Your task to perform on an android device: Clear the shopping cart on walmart.com. Search for usb-c to usb-b on walmart.com, select the first entry, add it to the cart, then select checkout. Image 0: 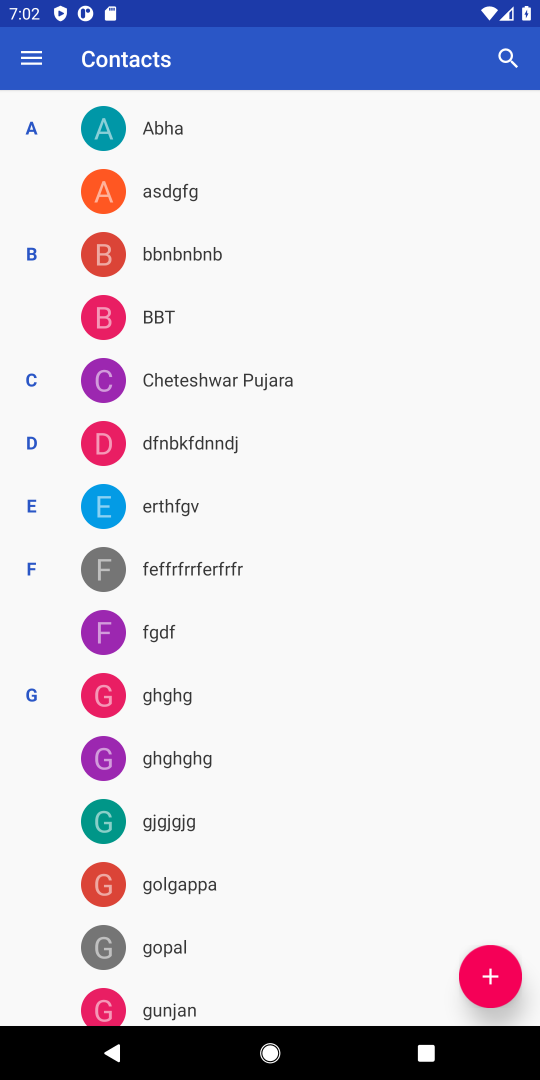
Step 0: press home button
Your task to perform on an android device: Clear the shopping cart on walmart.com. Search for usb-c to usb-b on walmart.com, select the first entry, add it to the cart, then select checkout. Image 1: 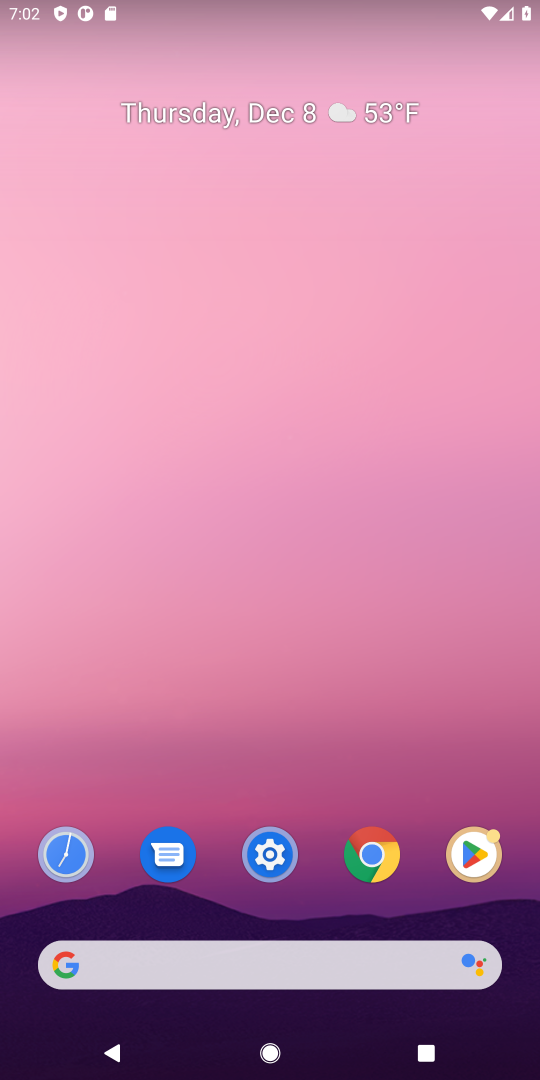
Step 1: click (89, 963)
Your task to perform on an android device: Clear the shopping cart on walmart.com. Search for usb-c to usb-b on walmart.com, select the first entry, add it to the cart, then select checkout. Image 2: 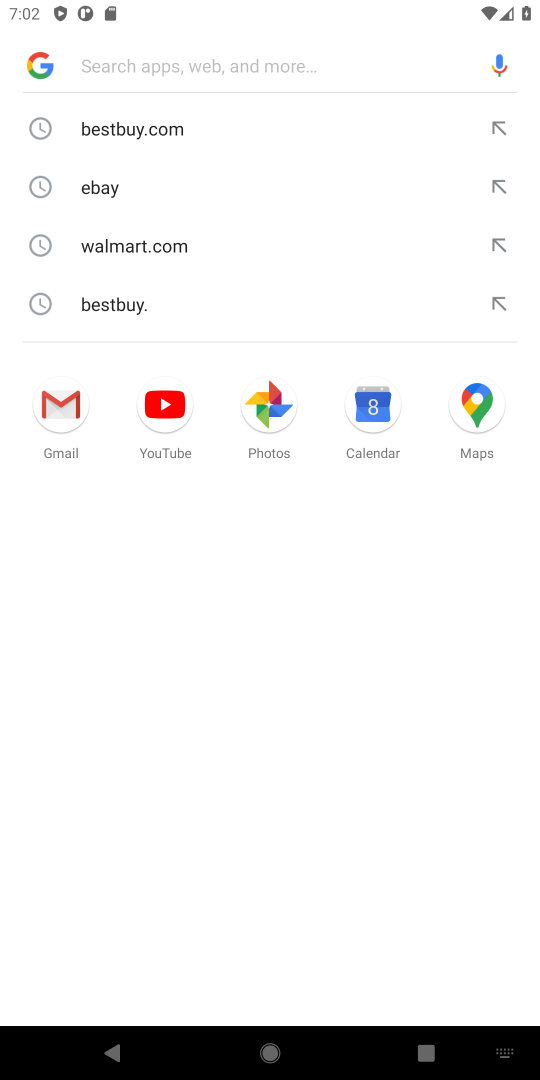
Step 2: type "walmart.com"
Your task to perform on an android device: Clear the shopping cart on walmart.com. Search for usb-c to usb-b on walmart.com, select the first entry, add it to the cart, then select checkout. Image 3: 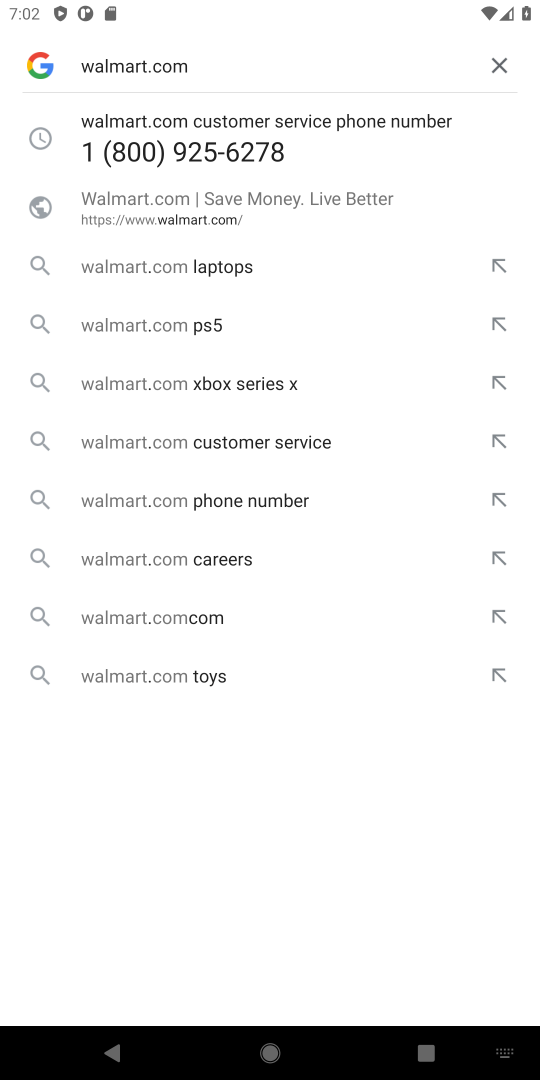
Step 3: press enter
Your task to perform on an android device: Clear the shopping cart on walmart.com. Search for usb-c to usb-b on walmart.com, select the first entry, add it to the cart, then select checkout. Image 4: 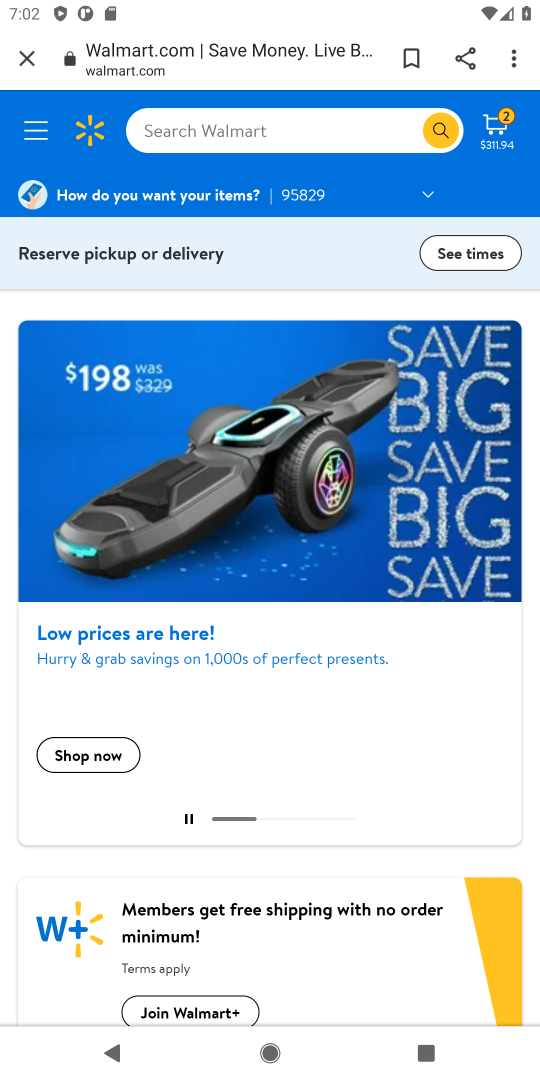
Step 4: click (493, 123)
Your task to perform on an android device: Clear the shopping cart on walmart.com. Search for usb-c to usb-b on walmart.com, select the first entry, add it to the cart, then select checkout. Image 5: 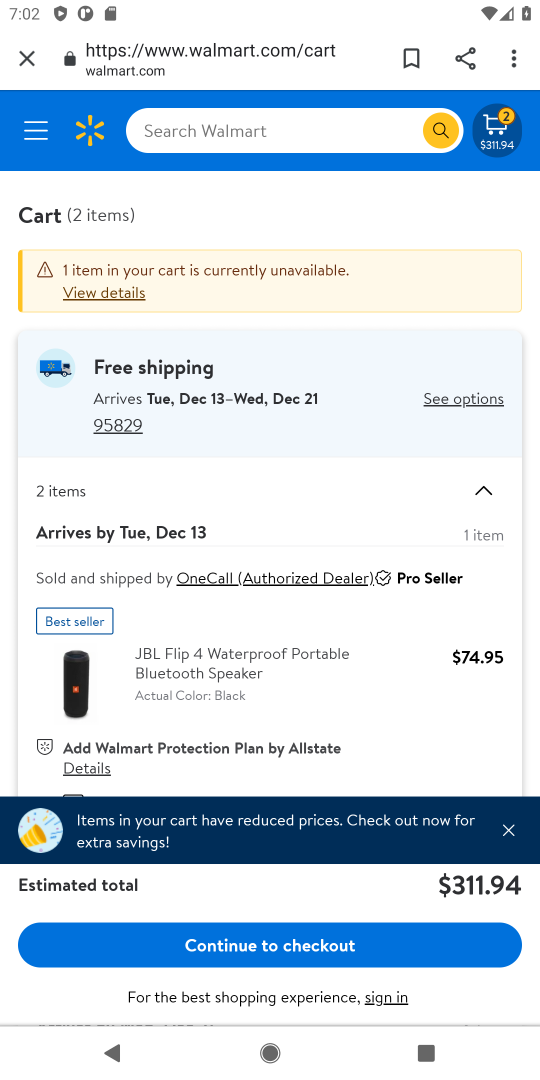
Step 5: drag from (296, 706) to (352, 373)
Your task to perform on an android device: Clear the shopping cart on walmart.com. Search for usb-c to usb-b on walmart.com, select the first entry, add it to the cart, then select checkout. Image 6: 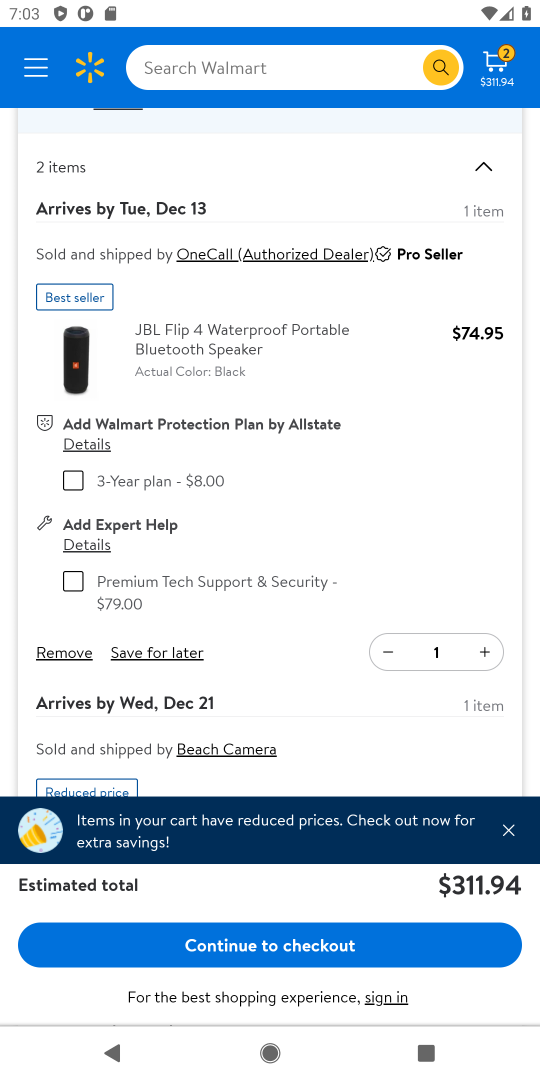
Step 6: click (58, 649)
Your task to perform on an android device: Clear the shopping cart on walmart.com. Search for usb-c to usb-b on walmart.com, select the first entry, add it to the cart, then select checkout. Image 7: 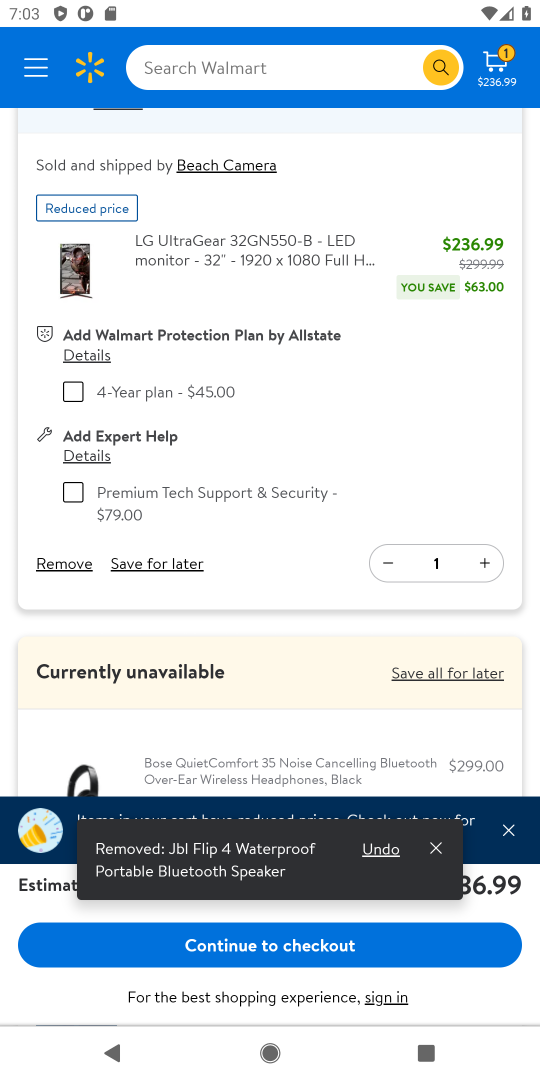
Step 7: click (69, 566)
Your task to perform on an android device: Clear the shopping cart on walmart.com. Search for usb-c to usb-b on walmart.com, select the first entry, add it to the cart, then select checkout. Image 8: 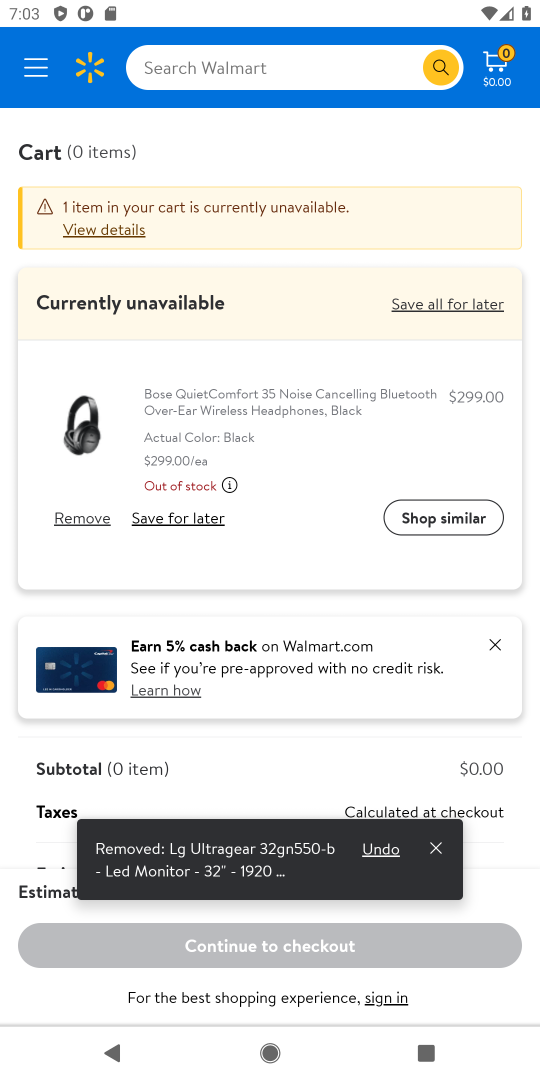
Step 8: click (72, 512)
Your task to perform on an android device: Clear the shopping cart on walmart.com. Search for usb-c to usb-b on walmart.com, select the first entry, add it to the cart, then select checkout. Image 9: 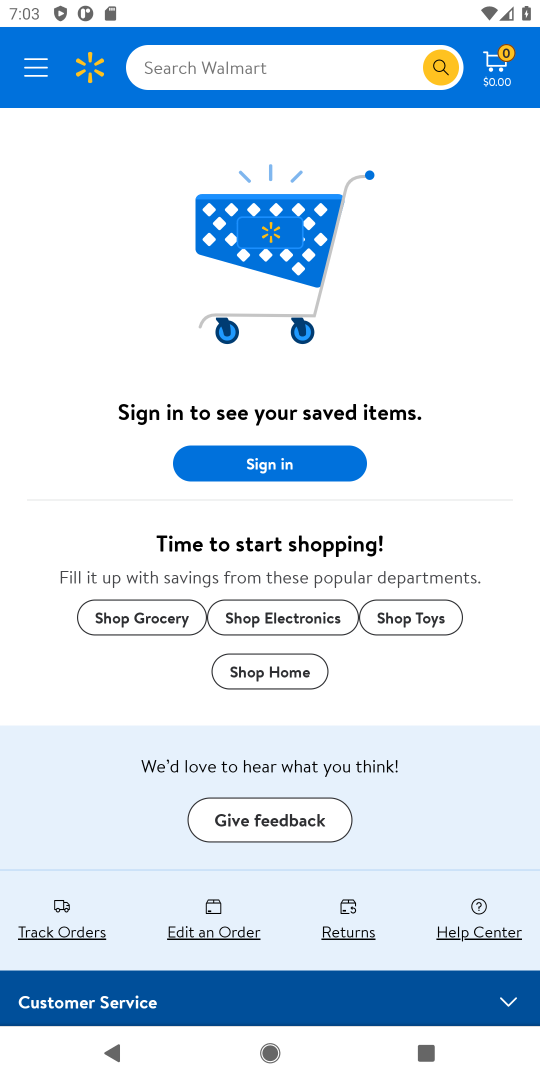
Step 9: click (249, 68)
Your task to perform on an android device: Clear the shopping cart on walmart.com. Search for usb-c to usb-b on walmart.com, select the first entry, add it to the cart, then select checkout. Image 10: 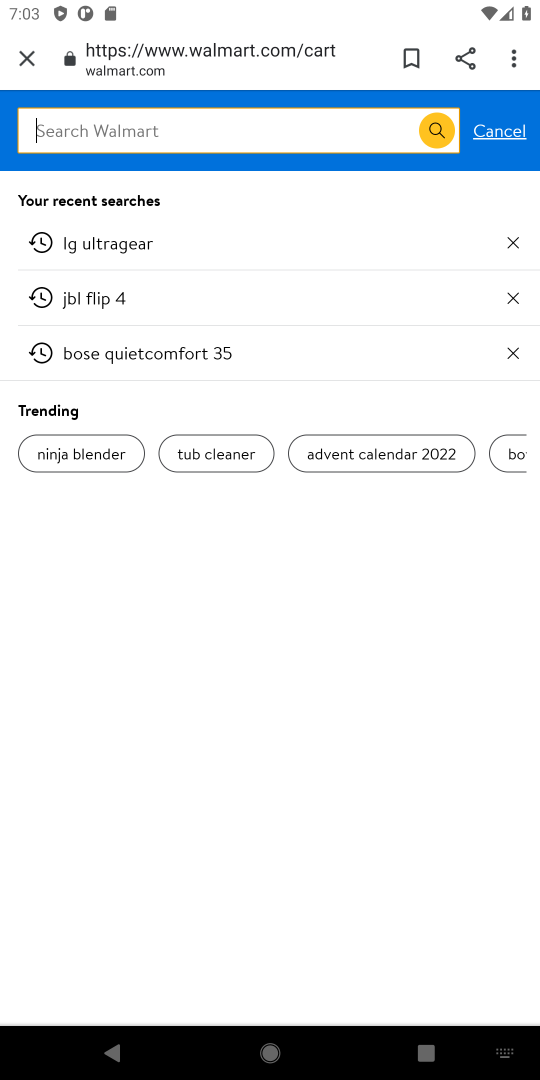
Step 10: type "usb-c to usb-b"
Your task to perform on an android device: Clear the shopping cart on walmart.com. Search for usb-c to usb-b on walmart.com, select the first entry, add it to the cart, then select checkout. Image 11: 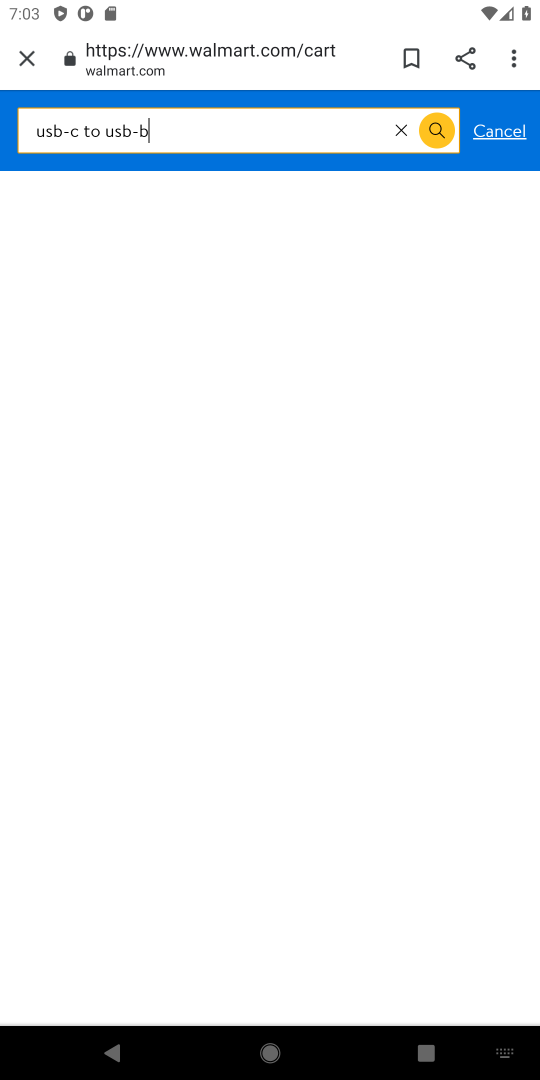
Step 11: press enter
Your task to perform on an android device: Clear the shopping cart on walmart.com. Search for usb-c to usb-b on walmart.com, select the first entry, add it to the cart, then select checkout. Image 12: 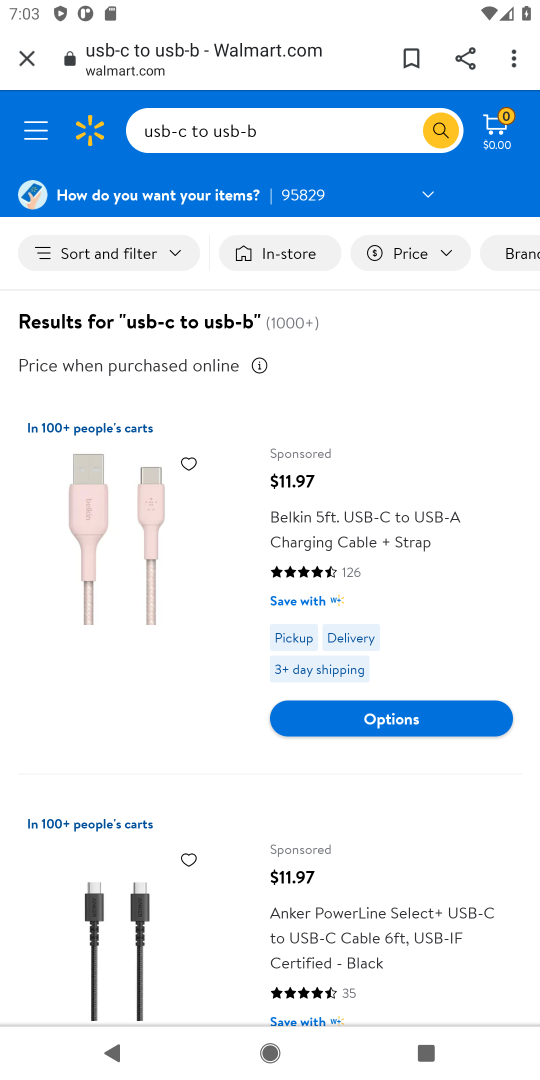
Step 12: click (356, 924)
Your task to perform on an android device: Clear the shopping cart on walmart.com. Search for usb-c to usb-b on walmart.com, select the first entry, add it to the cart, then select checkout. Image 13: 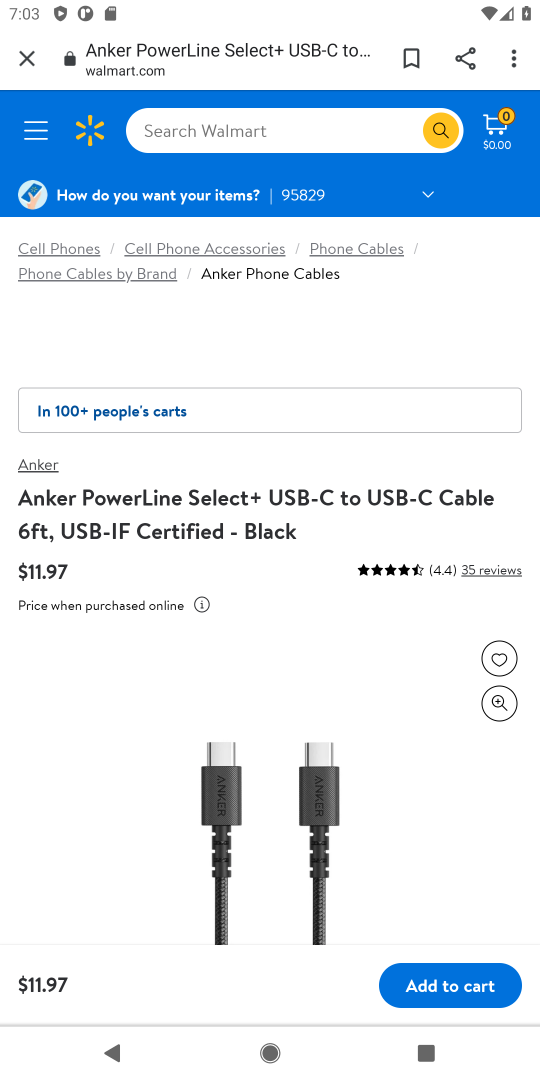
Step 13: click (442, 989)
Your task to perform on an android device: Clear the shopping cart on walmart.com. Search for usb-c to usb-b on walmart.com, select the first entry, add it to the cart, then select checkout. Image 14: 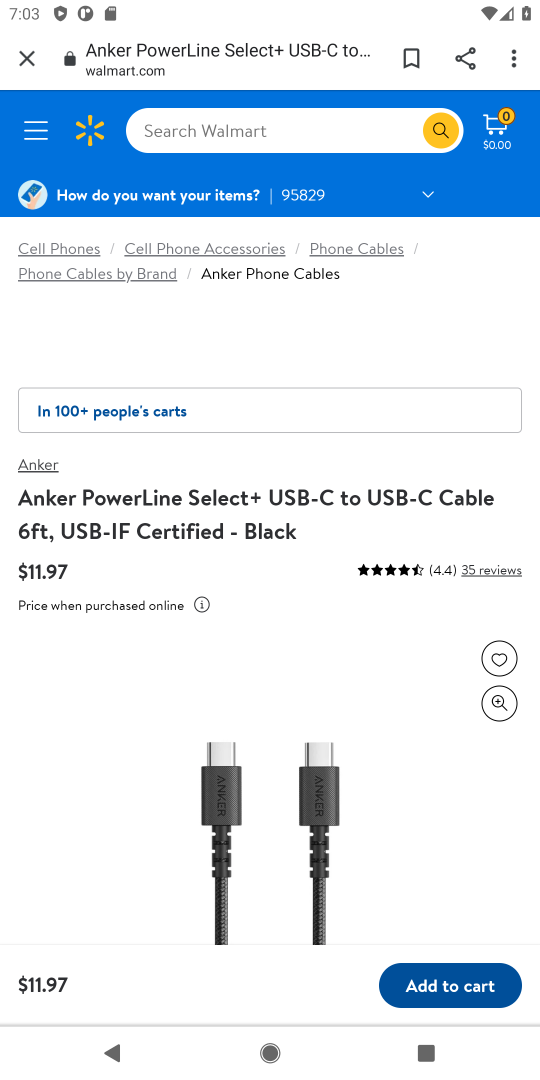
Step 14: click (445, 985)
Your task to perform on an android device: Clear the shopping cart on walmart.com. Search for usb-c to usb-b on walmart.com, select the first entry, add it to the cart, then select checkout. Image 15: 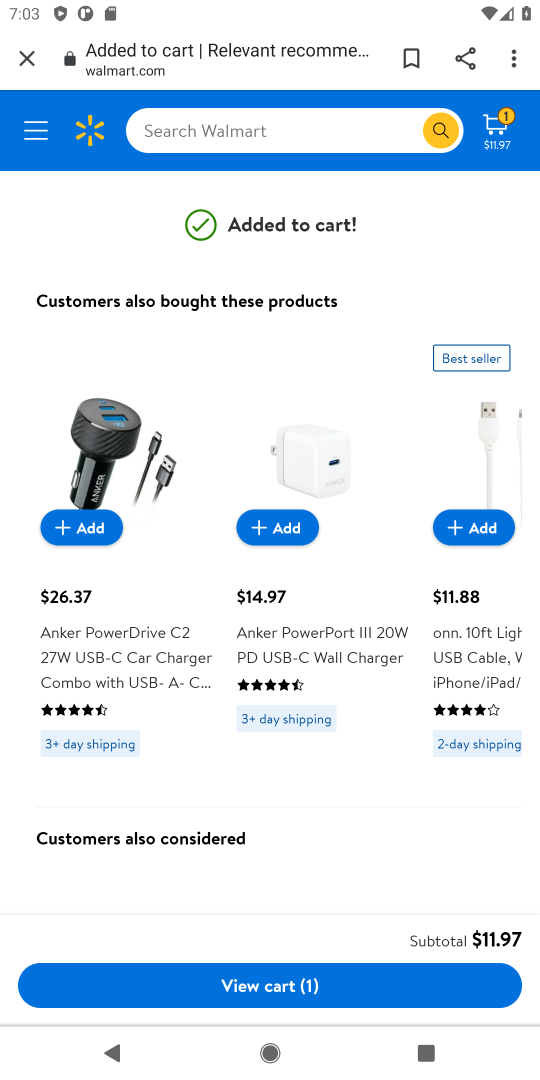
Step 15: task complete